Your task to perform on an android device: Show the shopping cart on walmart. Search for "jbl flip 4" on walmart, select the first entry, and add it to the cart. Image 0: 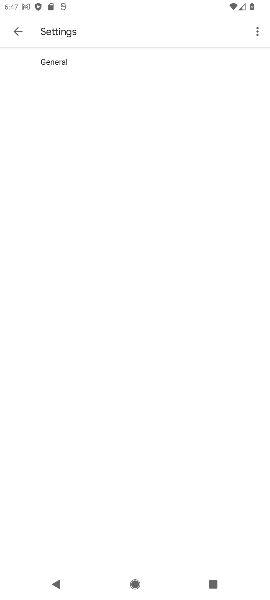
Step 0: press home button
Your task to perform on an android device: Show the shopping cart on walmart. Search for "jbl flip 4" on walmart, select the first entry, and add it to the cart. Image 1: 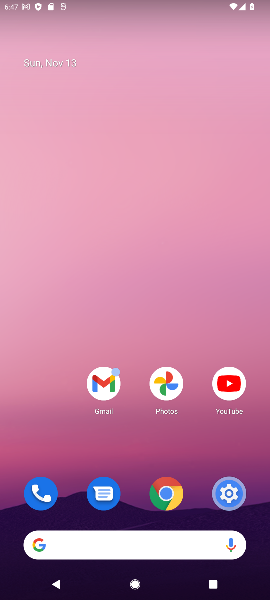
Step 1: click (151, 541)
Your task to perform on an android device: Show the shopping cart on walmart. Search for "jbl flip 4" on walmart, select the first entry, and add it to the cart. Image 2: 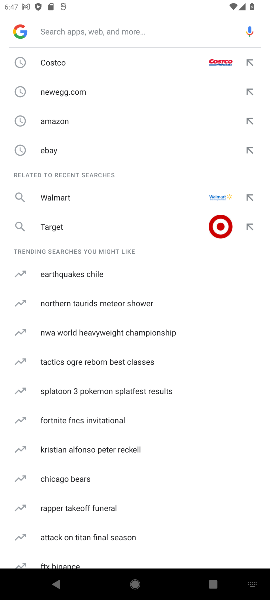
Step 2: click (119, 194)
Your task to perform on an android device: Show the shopping cart on walmart. Search for "jbl flip 4" on walmart, select the first entry, and add it to the cart. Image 3: 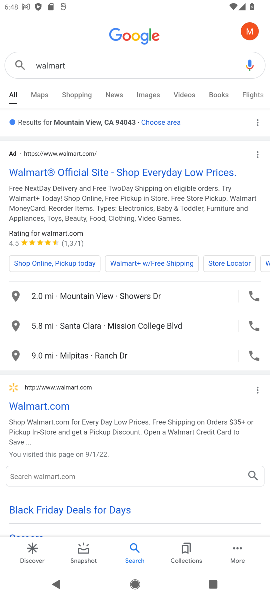
Step 3: click (41, 406)
Your task to perform on an android device: Show the shopping cart on walmart. Search for "jbl flip 4" on walmart, select the first entry, and add it to the cart. Image 4: 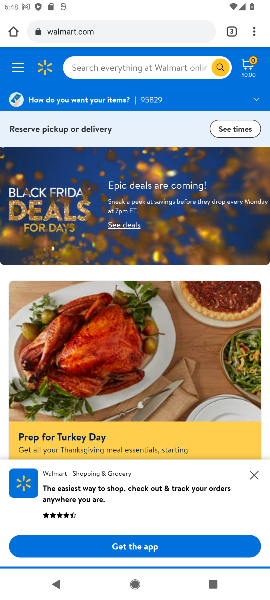
Step 4: click (252, 73)
Your task to perform on an android device: Show the shopping cart on walmart. Search for "jbl flip 4" on walmart, select the first entry, and add it to the cart. Image 5: 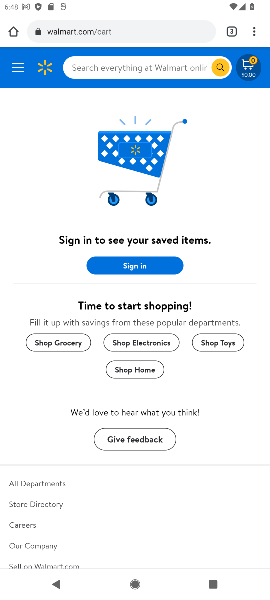
Step 5: click (173, 73)
Your task to perform on an android device: Show the shopping cart on walmart. Search for "jbl flip 4" on walmart, select the first entry, and add it to the cart. Image 6: 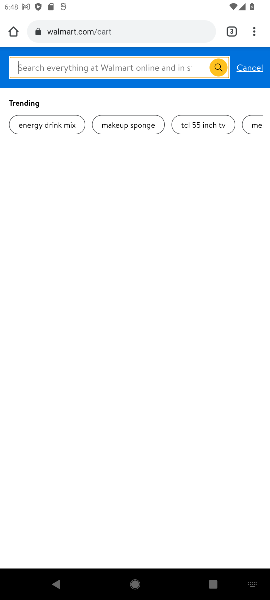
Step 6: type "jbl flip 4"
Your task to perform on an android device: Show the shopping cart on walmart. Search for "jbl flip 4" on walmart, select the first entry, and add it to the cart. Image 7: 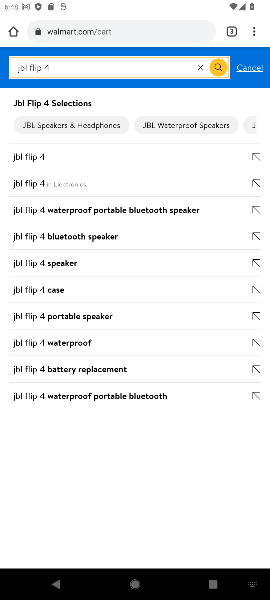
Step 7: click (221, 70)
Your task to perform on an android device: Show the shopping cart on walmart. Search for "jbl flip 4" on walmart, select the first entry, and add it to the cart. Image 8: 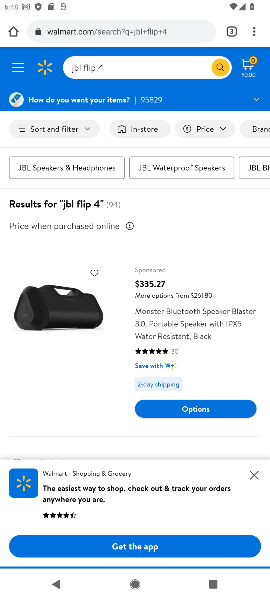
Step 8: click (254, 473)
Your task to perform on an android device: Show the shopping cart on walmart. Search for "jbl flip 4" on walmart, select the first entry, and add it to the cart. Image 9: 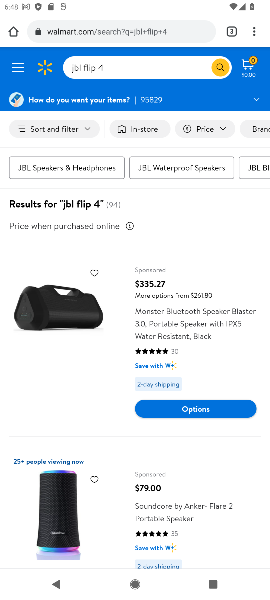
Step 9: click (181, 409)
Your task to perform on an android device: Show the shopping cart on walmart. Search for "jbl flip 4" on walmart, select the first entry, and add it to the cart. Image 10: 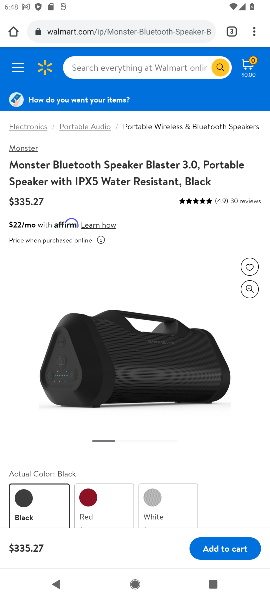
Step 10: click (217, 549)
Your task to perform on an android device: Show the shopping cart on walmart. Search for "jbl flip 4" on walmart, select the first entry, and add it to the cart. Image 11: 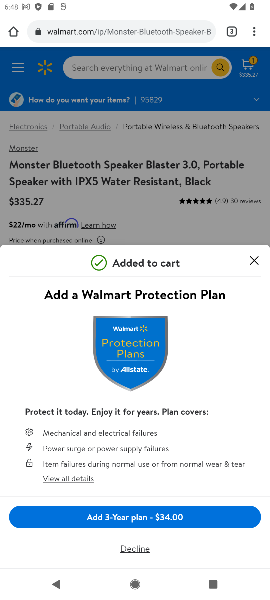
Step 11: click (127, 546)
Your task to perform on an android device: Show the shopping cart on walmart. Search for "jbl flip 4" on walmart, select the first entry, and add it to the cart. Image 12: 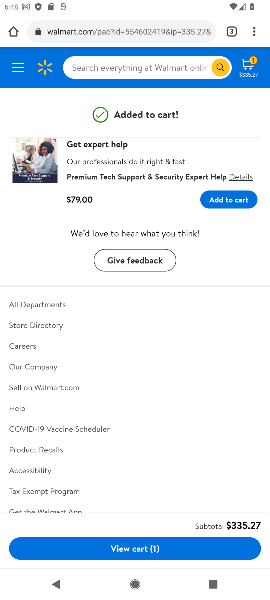
Step 12: task complete